Your task to perform on an android device: Is it going to rain tomorrow? Image 0: 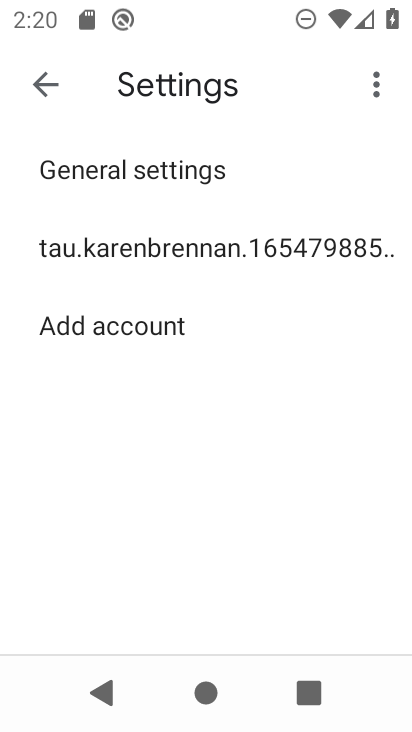
Step 0: press home button
Your task to perform on an android device: Is it going to rain tomorrow? Image 1: 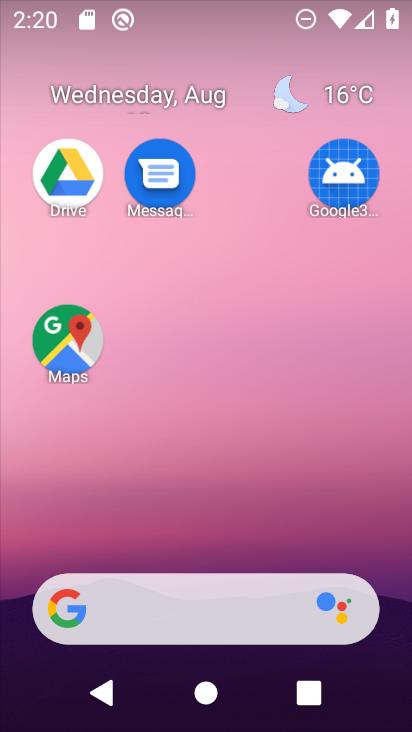
Step 1: click (198, 602)
Your task to perform on an android device: Is it going to rain tomorrow? Image 2: 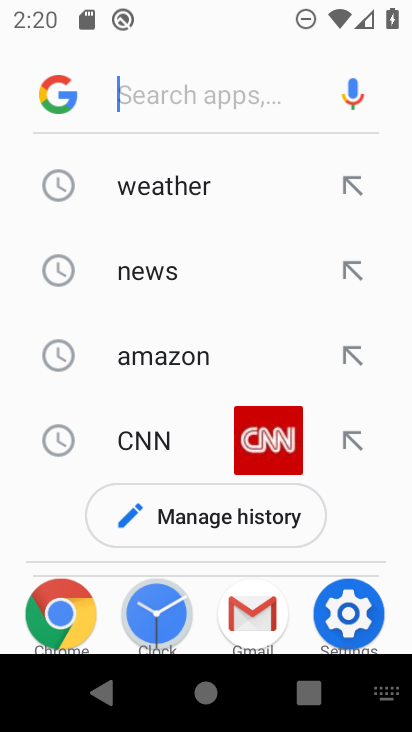
Step 2: click (182, 196)
Your task to perform on an android device: Is it going to rain tomorrow? Image 3: 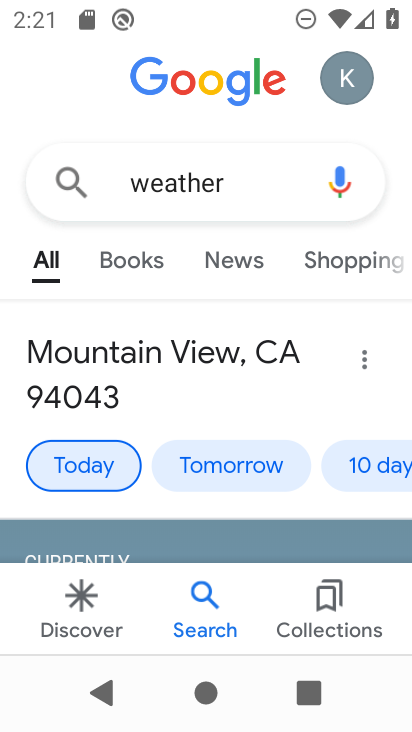
Step 3: drag from (229, 538) to (252, 143)
Your task to perform on an android device: Is it going to rain tomorrow? Image 4: 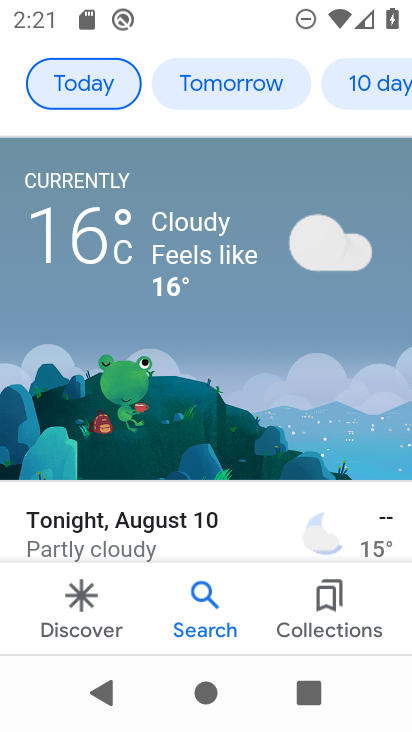
Step 4: click (254, 64)
Your task to perform on an android device: Is it going to rain tomorrow? Image 5: 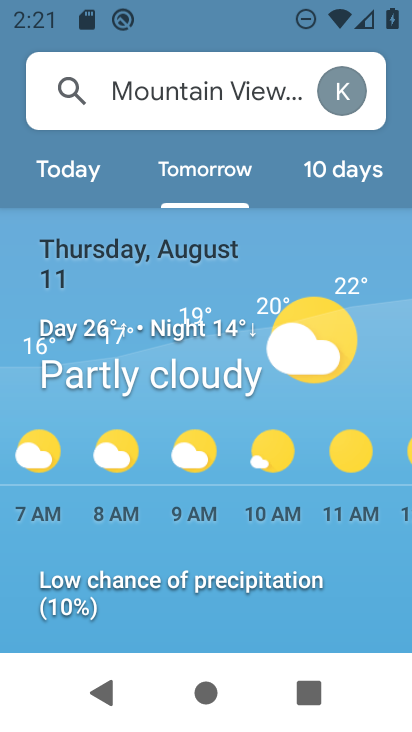
Step 5: task complete